Your task to perform on an android device: Open Yahoo.com Image 0: 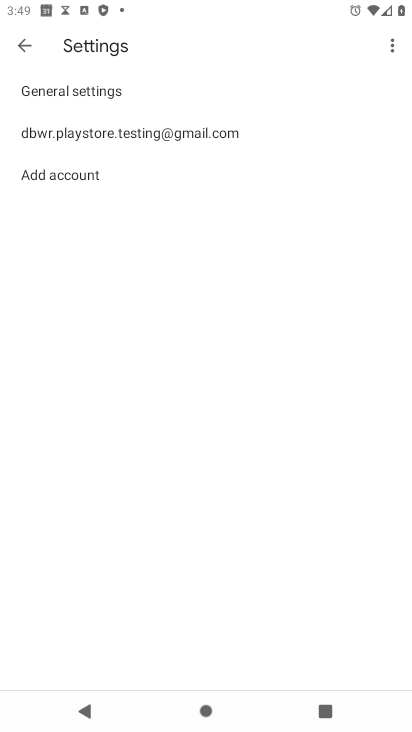
Step 0: press home button
Your task to perform on an android device: Open Yahoo.com Image 1: 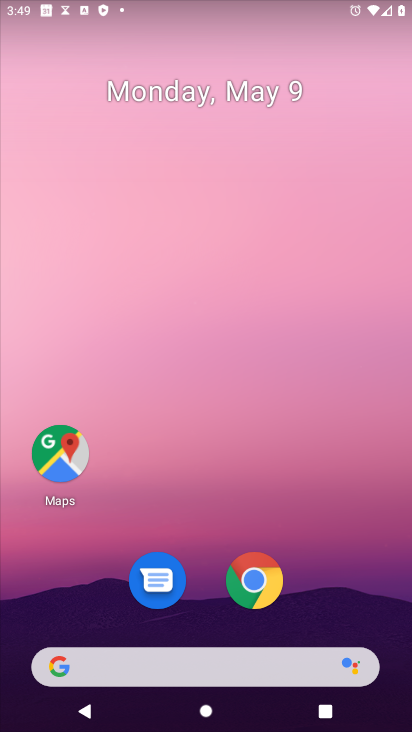
Step 1: drag from (332, 596) to (198, 138)
Your task to perform on an android device: Open Yahoo.com Image 2: 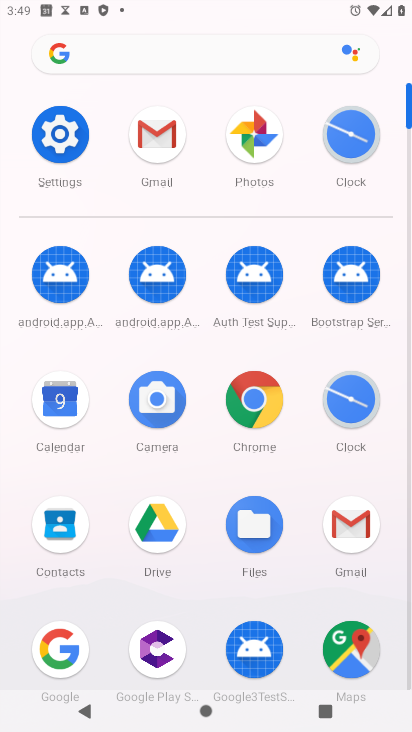
Step 2: click (244, 400)
Your task to perform on an android device: Open Yahoo.com Image 3: 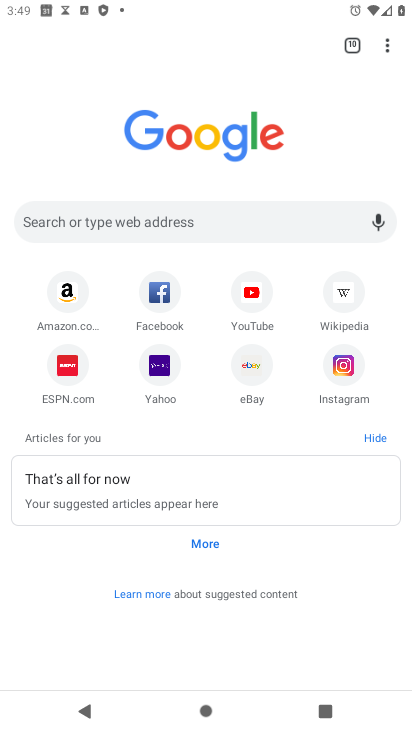
Step 3: click (163, 369)
Your task to perform on an android device: Open Yahoo.com Image 4: 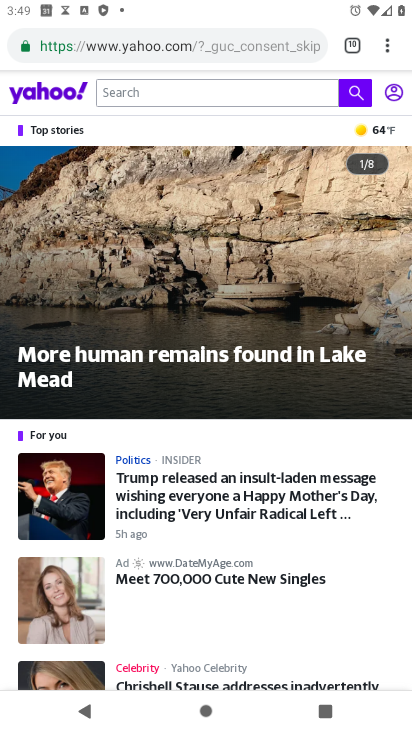
Step 4: task complete